Your task to perform on an android device: When is my next meeting? Image 0: 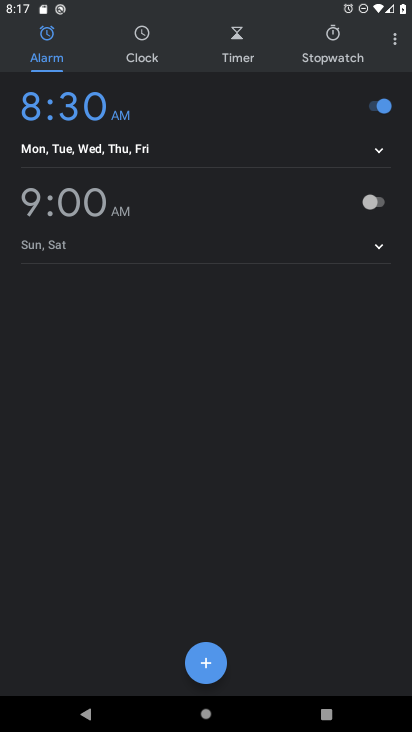
Step 0: press home button
Your task to perform on an android device: When is my next meeting? Image 1: 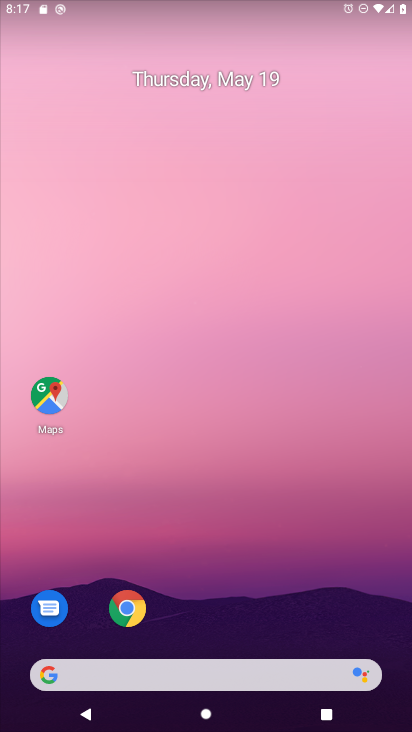
Step 1: drag from (384, 639) to (340, 178)
Your task to perform on an android device: When is my next meeting? Image 2: 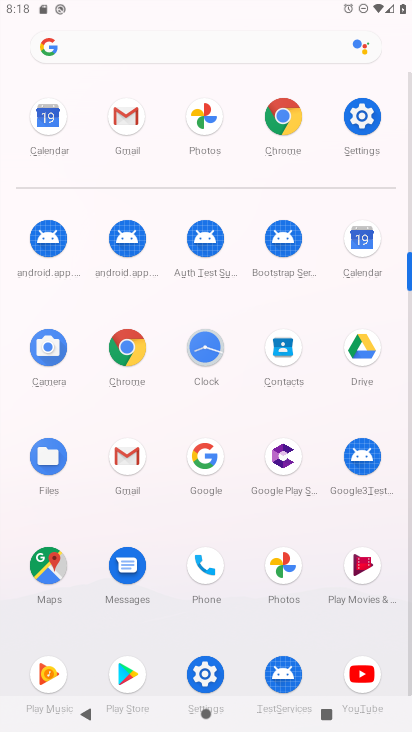
Step 2: click (356, 233)
Your task to perform on an android device: When is my next meeting? Image 3: 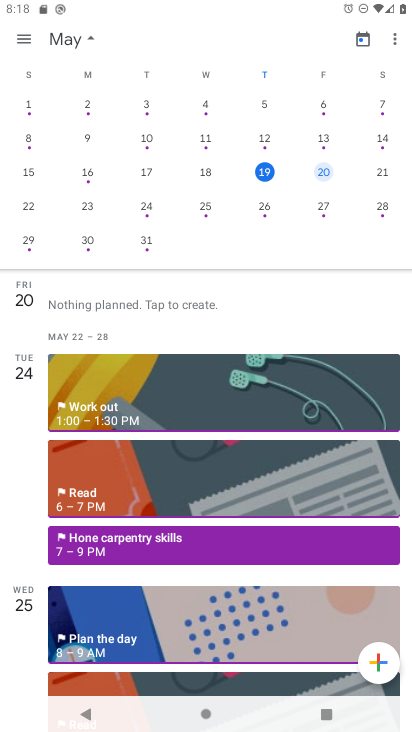
Step 3: click (29, 38)
Your task to perform on an android device: When is my next meeting? Image 4: 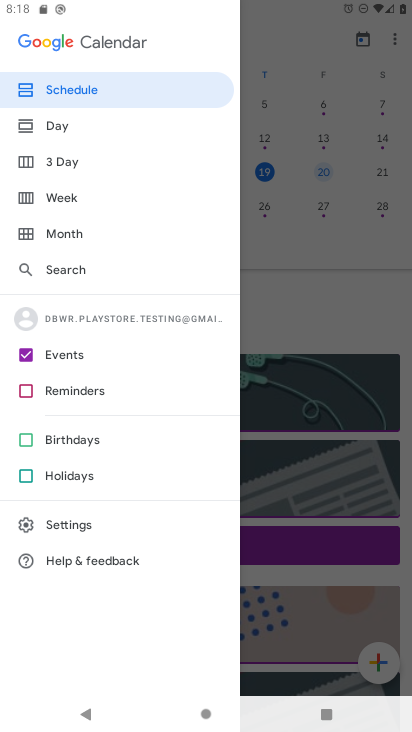
Step 4: click (71, 93)
Your task to perform on an android device: When is my next meeting? Image 5: 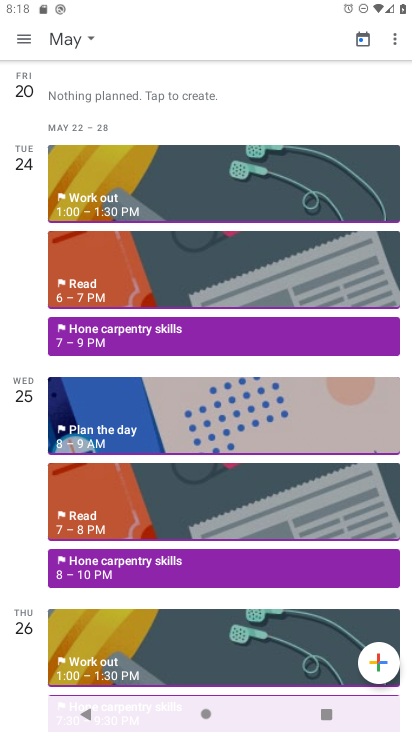
Step 5: task complete